Your task to perform on an android device: How do I get to the nearest Starbucks? Image 0: 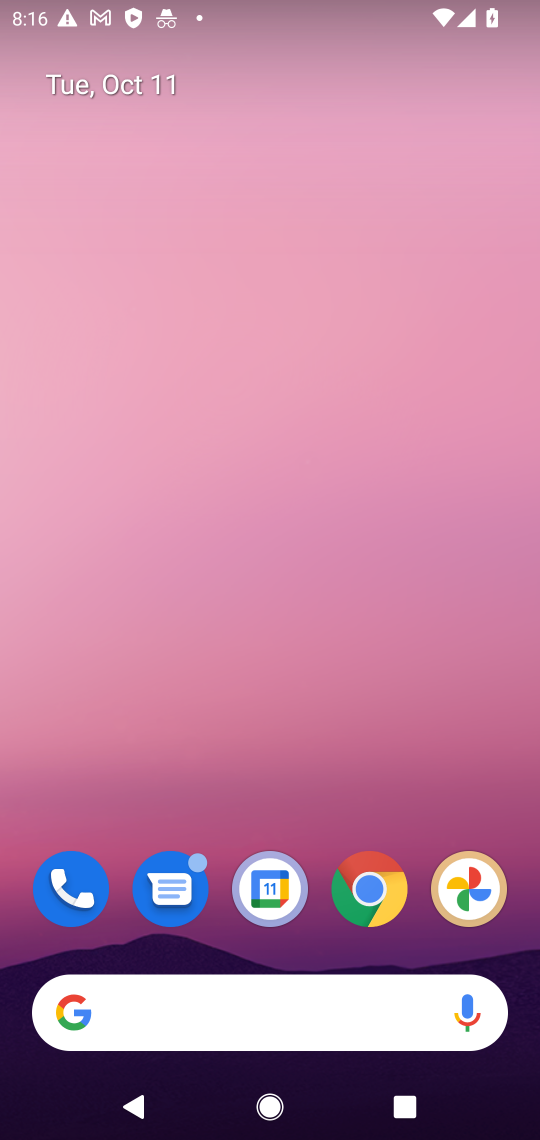
Step 0: click (265, 1016)
Your task to perform on an android device: How do I get to the nearest Starbucks? Image 1: 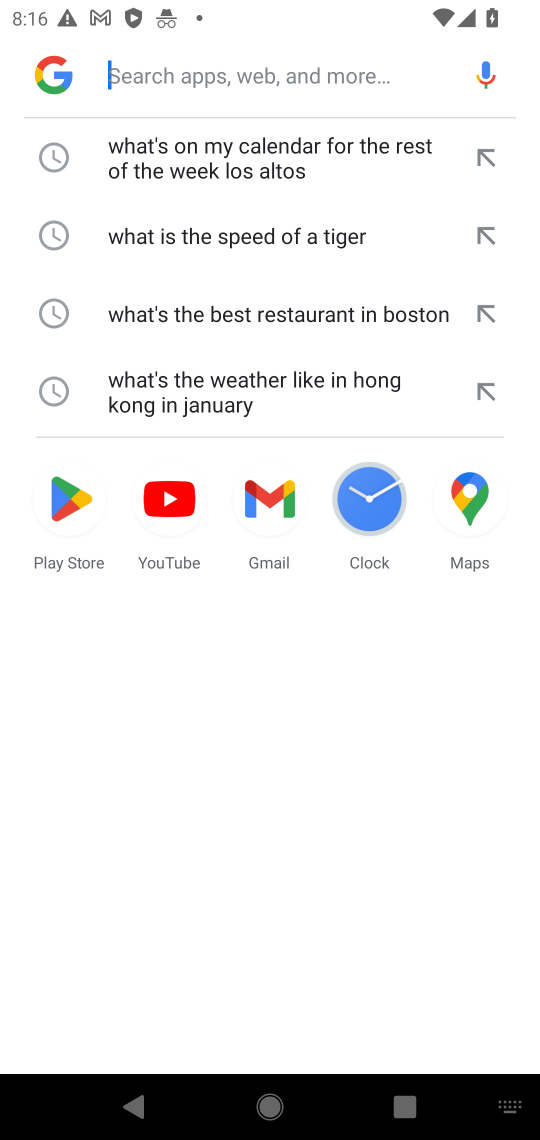
Step 1: click (177, 78)
Your task to perform on an android device: How do I get to the nearest Starbucks? Image 2: 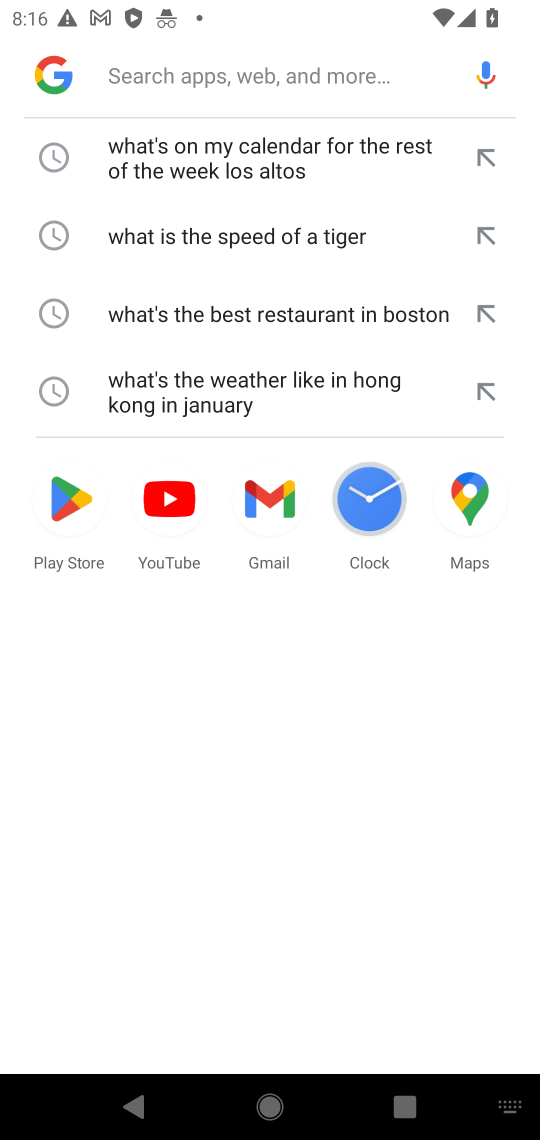
Step 2: type "How do I get to the nearest Starbucks?"
Your task to perform on an android device: How do I get to the nearest Starbucks? Image 3: 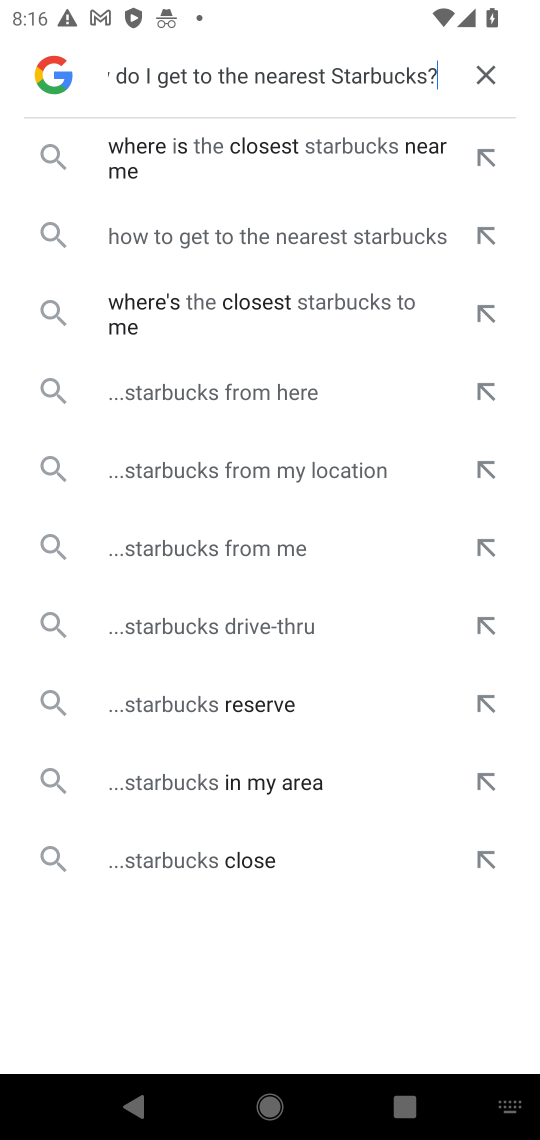
Step 3: click (241, 158)
Your task to perform on an android device: How do I get to the nearest Starbucks? Image 4: 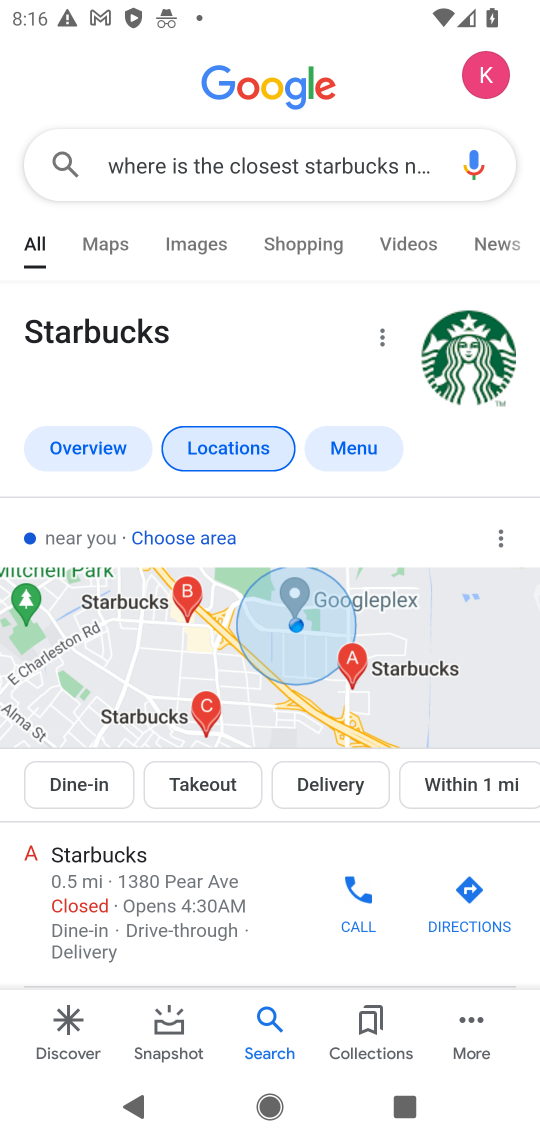
Step 4: task complete